Your task to perform on an android device: Open settings on Google Maps Image 0: 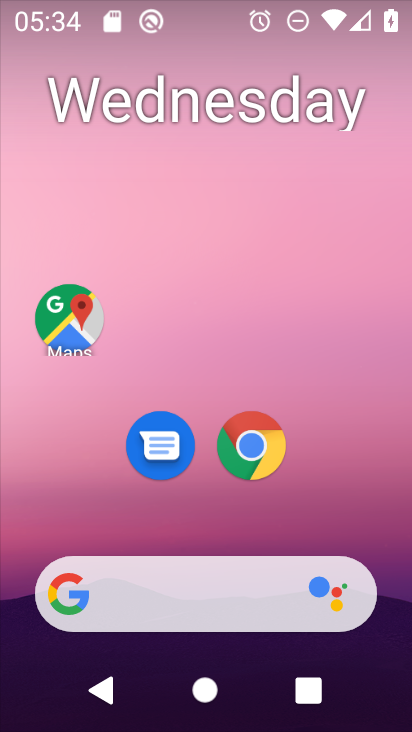
Step 0: click (71, 301)
Your task to perform on an android device: Open settings on Google Maps Image 1: 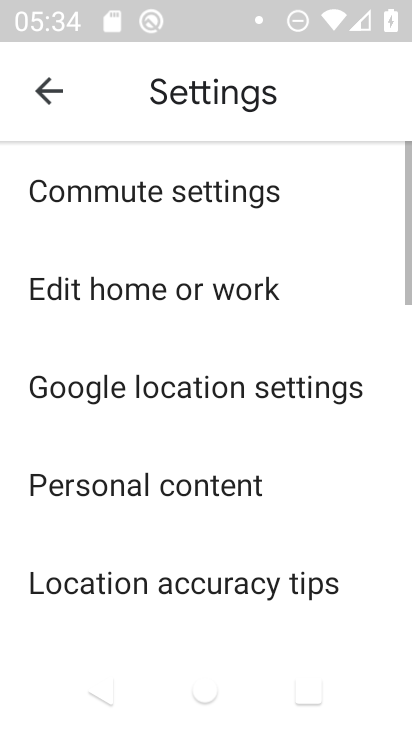
Step 1: task complete